Your task to perform on an android device: Search for duracell triple a on costco.com, select the first entry, and add it to the cart. Image 0: 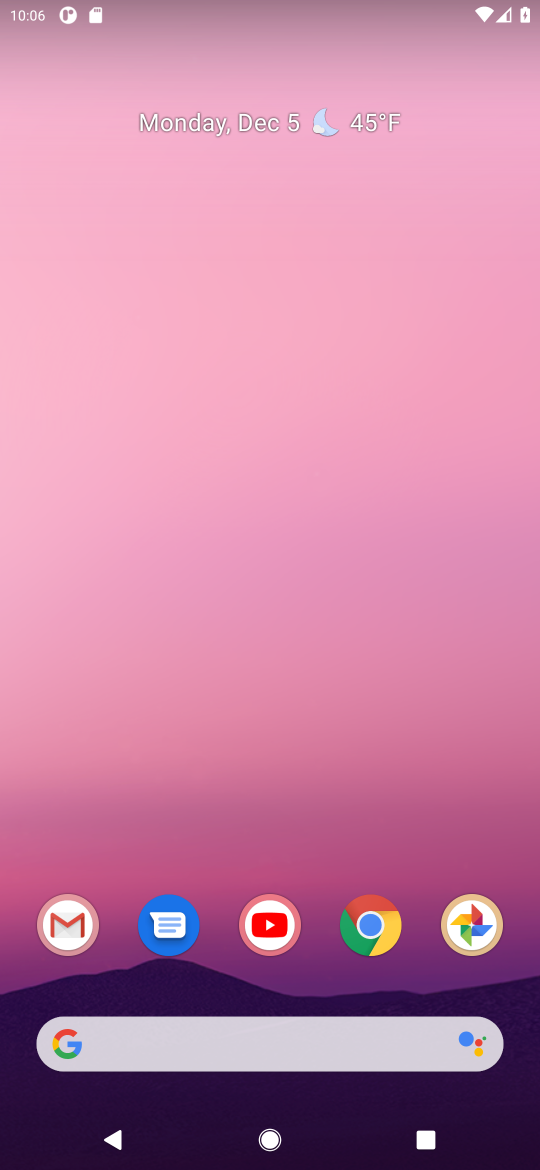
Step 0: click (377, 940)
Your task to perform on an android device: Search for duracell triple a on costco.com, select the first entry, and add it to the cart. Image 1: 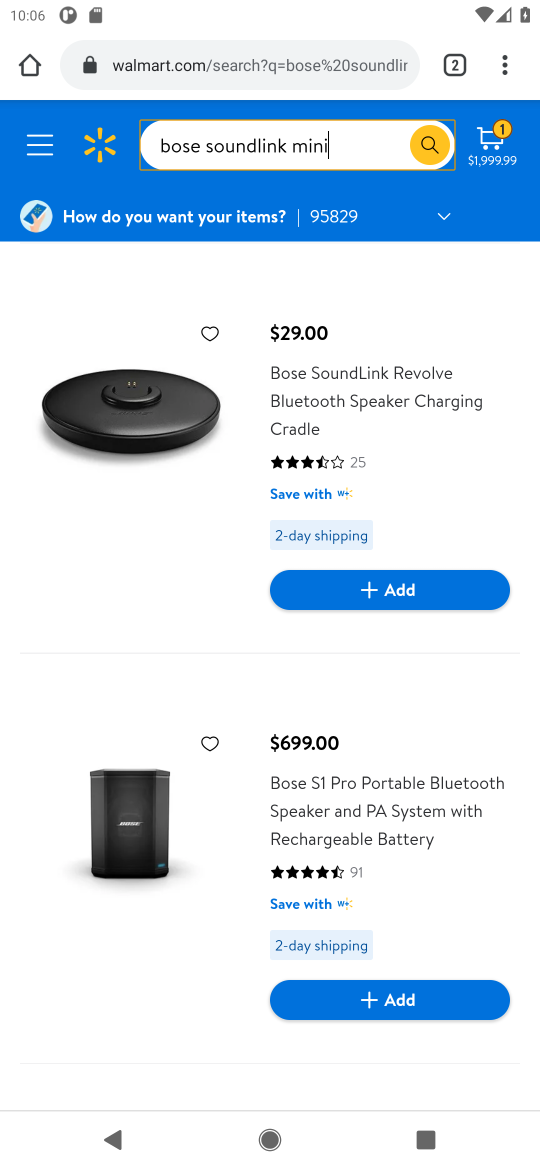
Step 1: click (183, 70)
Your task to perform on an android device: Search for duracell triple a on costco.com, select the first entry, and add it to the cart. Image 2: 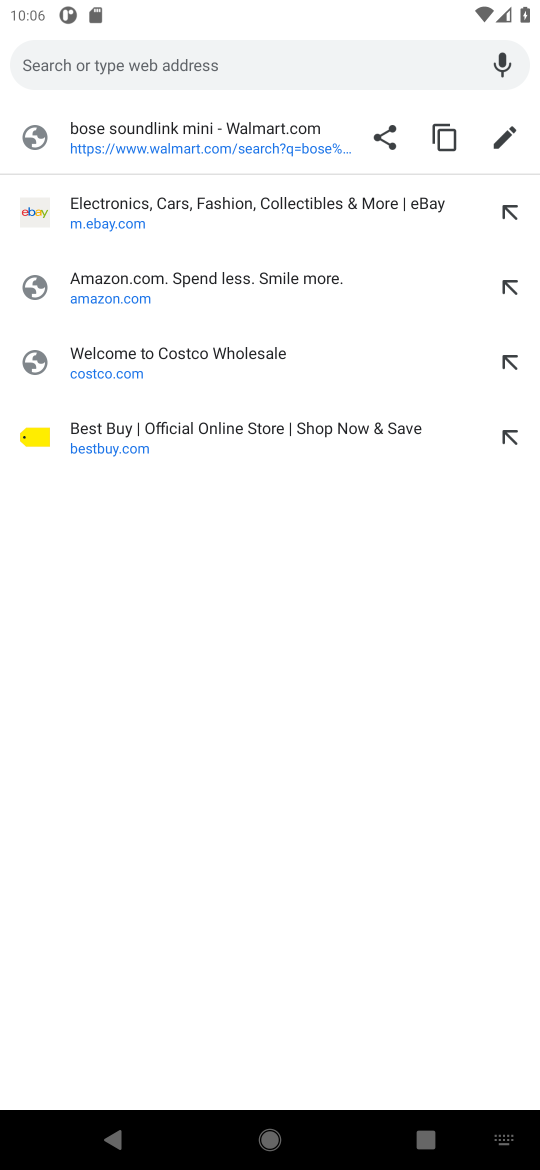
Step 2: click (85, 359)
Your task to perform on an android device: Search for duracell triple a on costco.com, select the first entry, and add it to the cart. Image 3: 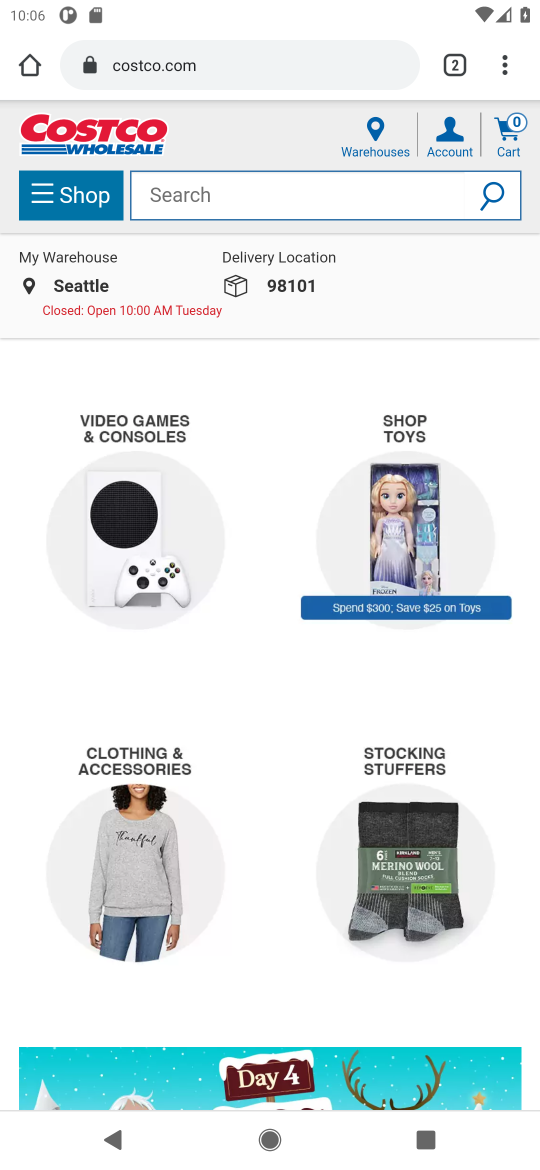
Step 3: click (206, 189)
Your task to perform on an android device: Search for duracell triple a on costco.com, select the first entry, and add it to the cart. Image 4: 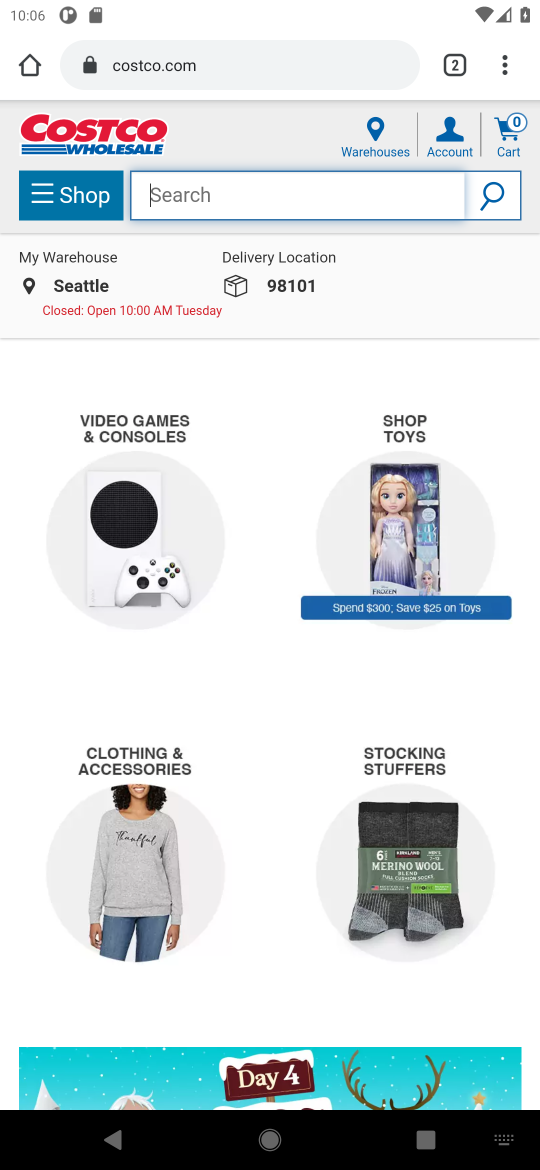
Step 4: type "duracell triple a"
Your task to perform on an android device: Search for duracell triple a on costco.com, select the first entry, and add it to the cart. Image 5: 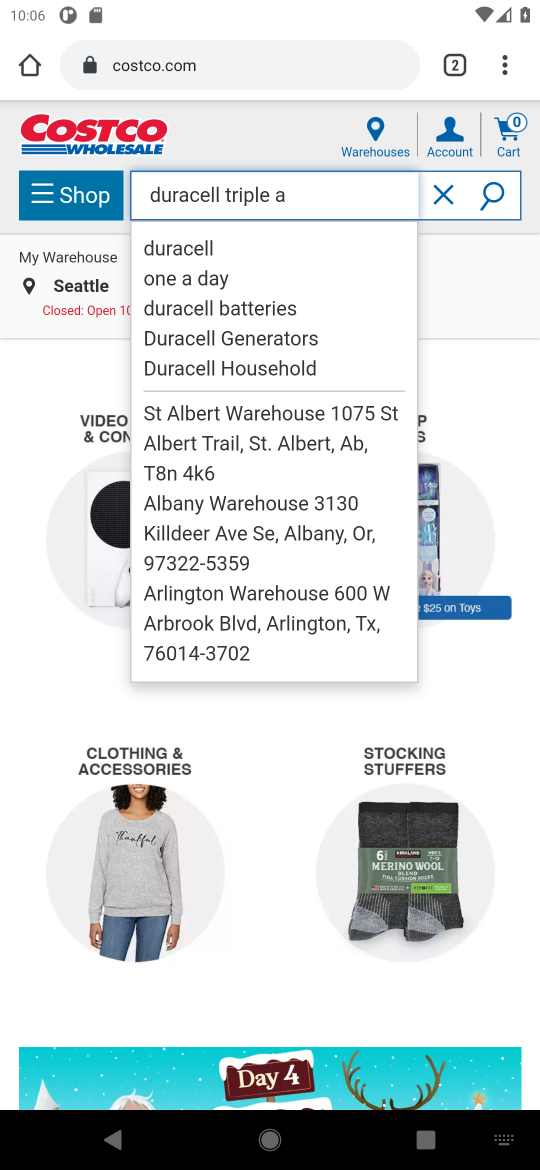
Step 5: click (503, 198)
Your task to perform on an android device: Search for duracell triple a on costco.com, select the first entry, and add it to the cart. Image 6: 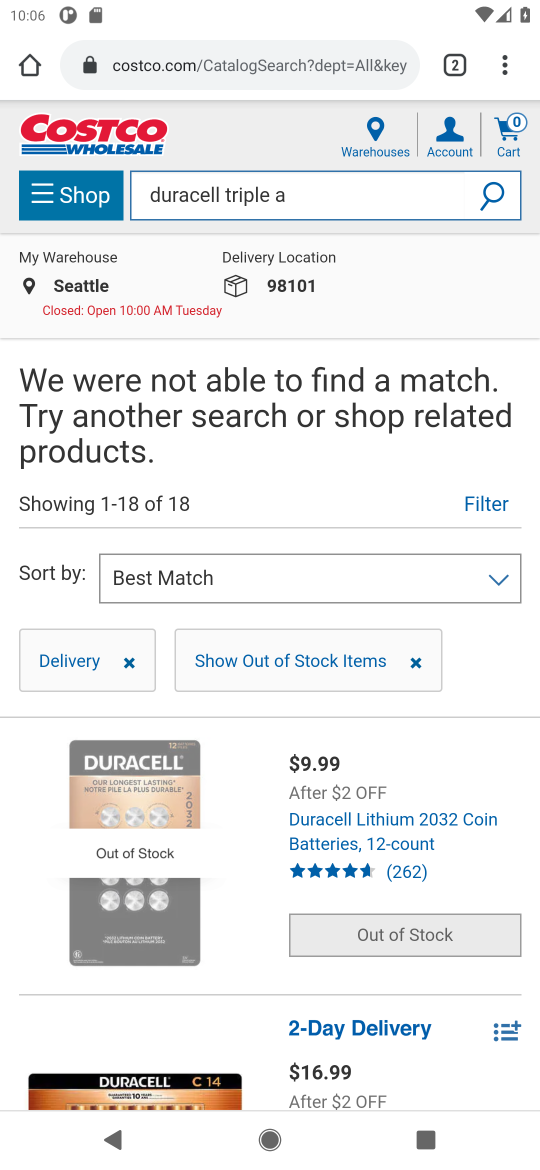
Step 6: task complete